Your task to perform on an android device: open sync settings in chrome Image 0: 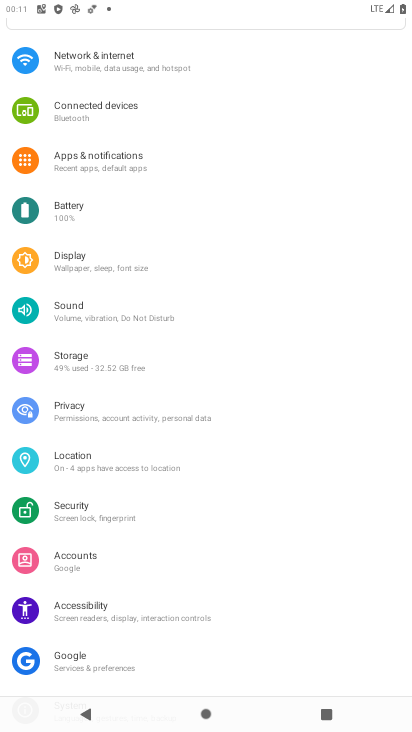
Step 0: press home button
Your task to perform on an android device: open sync settings in chrome Image 1: 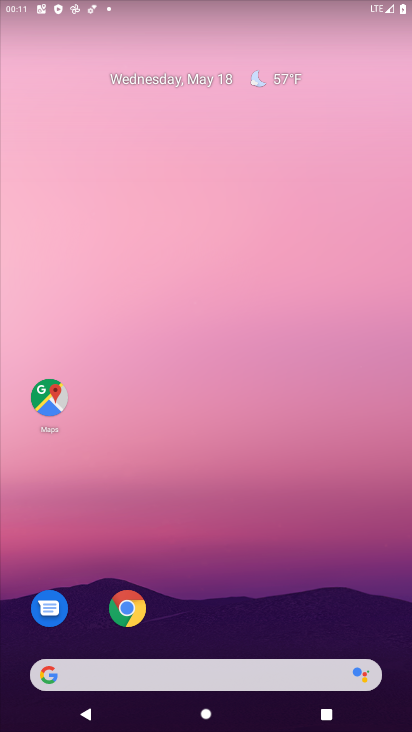
Step 1: click (127, 606)
Your task to perform on an android device: open sync settings in chrome Image 2: 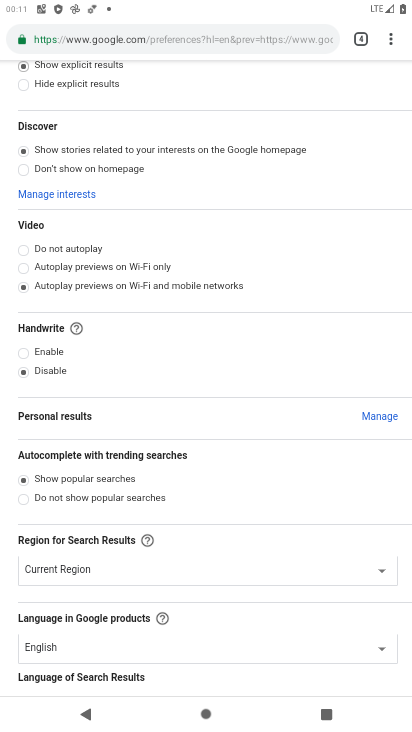
Step 2: click (389, 42)
Your task to perform on an android device: open sync settings in chrome Image 3: 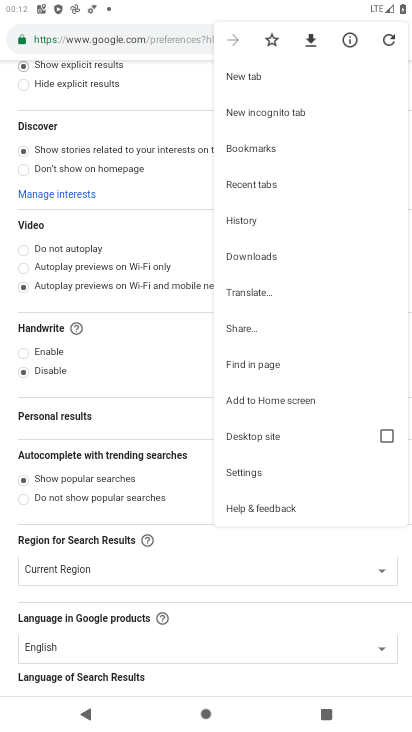
Step 3: click (242, 71)
Your task to perform on an android device: open sync settings in chrome Image 4: 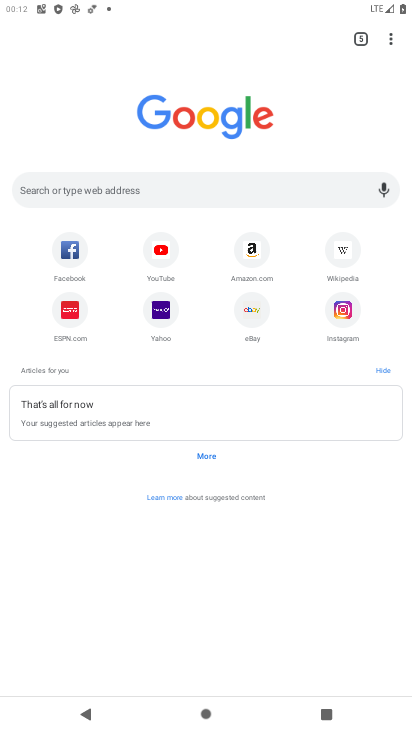
Step 4: click (389, 42)
Your task to perform on an android device: open sync settings in chrome Image 5: 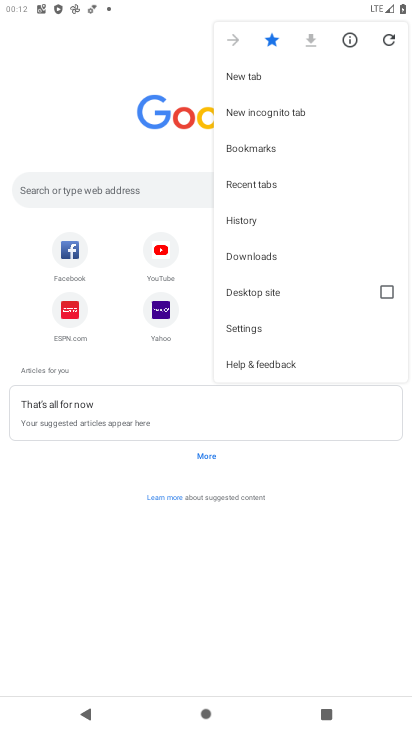
Step 5: click (253, 326)
Your task to perform on an android device: open sync settings in chrome Image 6: 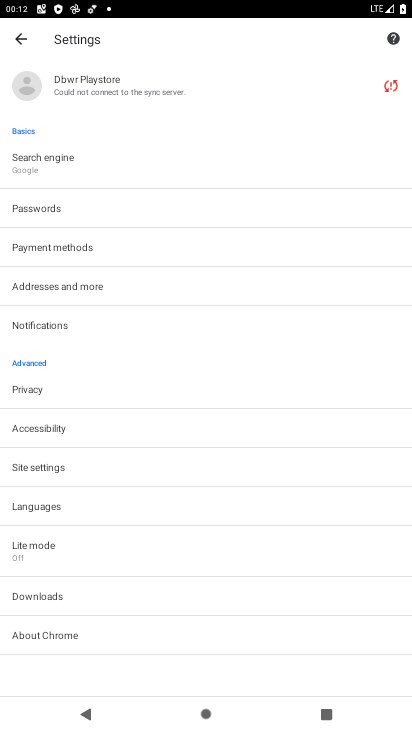
Step 6: click (67, 87)
Your task to perform on an android device: open sync settings in chrome Image 7: 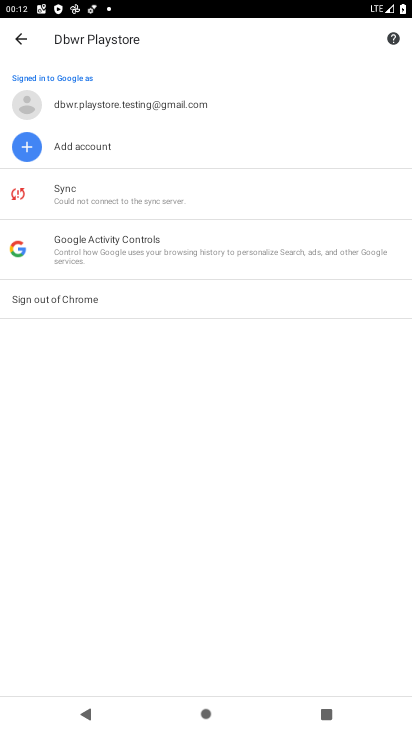
Step 7: click (80, 184)
Your task to perform on an android device: open sync settings in chrome Image 8: 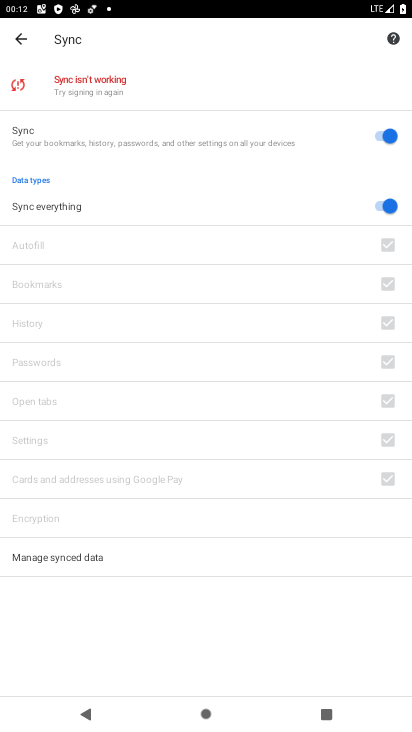
Step 8: task complete